Your task to perform on an android device: toggle sleep mode Image 0: 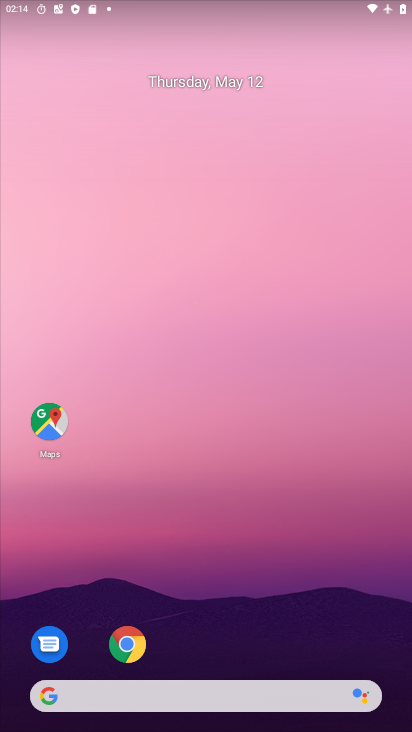
Step 0: drag from (260, 448) to (192, 13)
Your task to perform on an android device: toggle sleep mode Image 1: 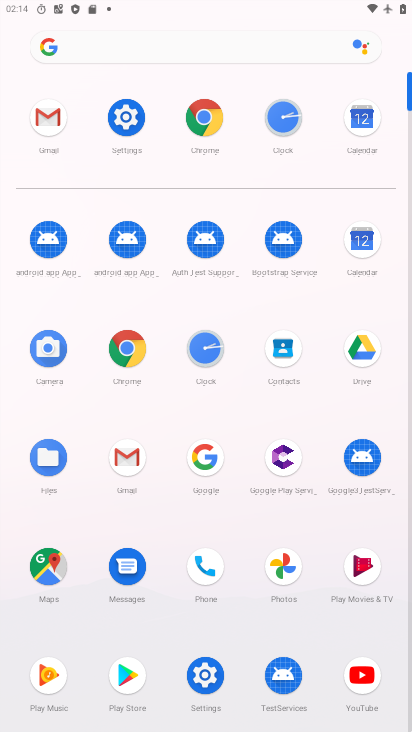
Step 1: click (134, 108)
Your task to perform on an android device: toggle sleep mode Image 2: 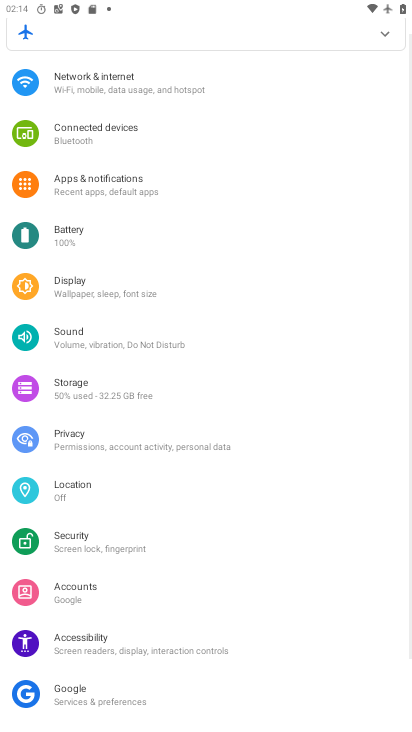
Step 2: click (118, 287)
Your task to perform on an android device: toggle sleep mode Image 3: 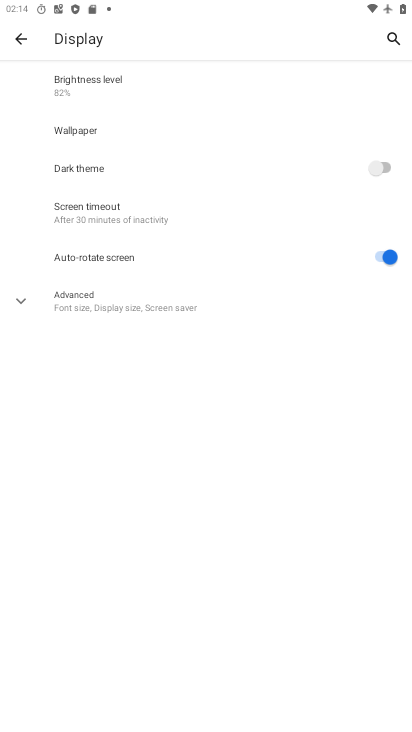
Step 3: task complete